Your task to perform on an android device: open wifi settings Image 0: 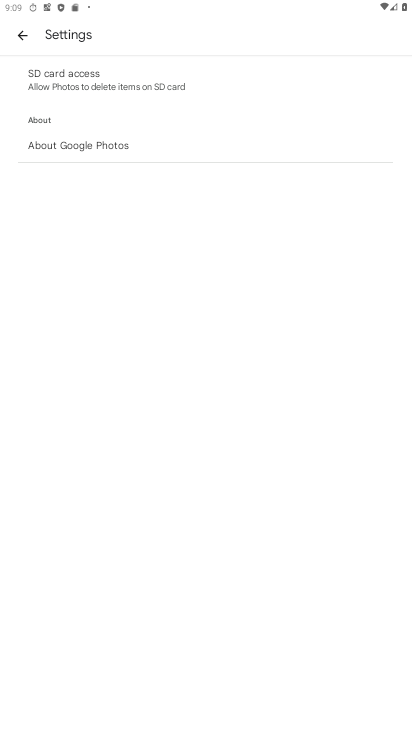
Step 0: press home button
Your task to perform on an android device: open wifi settings Image 1: 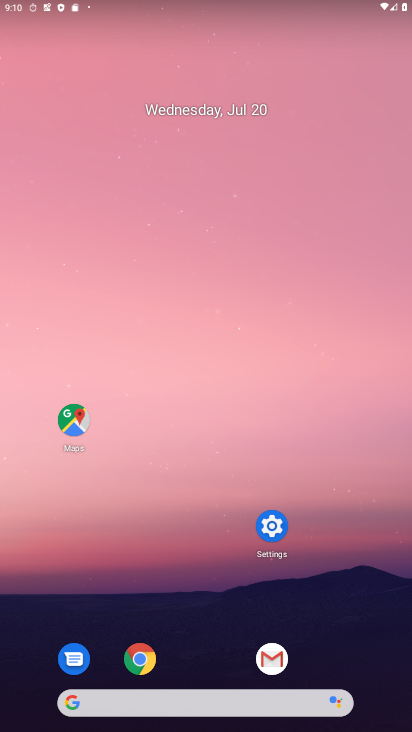
Step 1: click (268, 538)
Your task to perform on an android device: open wifi settings Image 2: 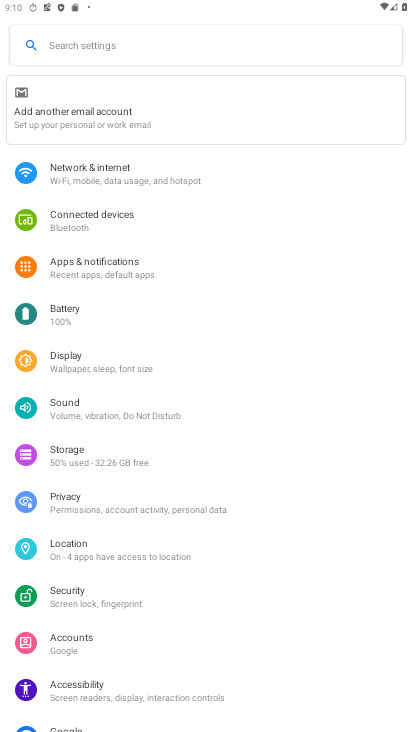
Step 2: click (97, 187)
Your task to perform on an android device: open wifi settings Image 3: 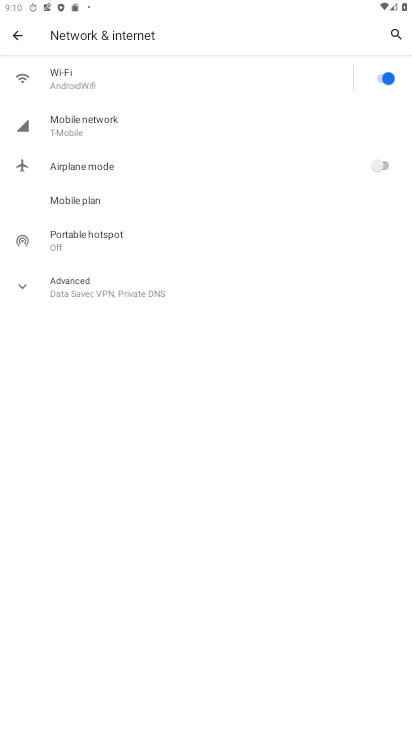
Step 3: click (111, 92)
Your task to perform on an android device: open wifi settings Image 4: 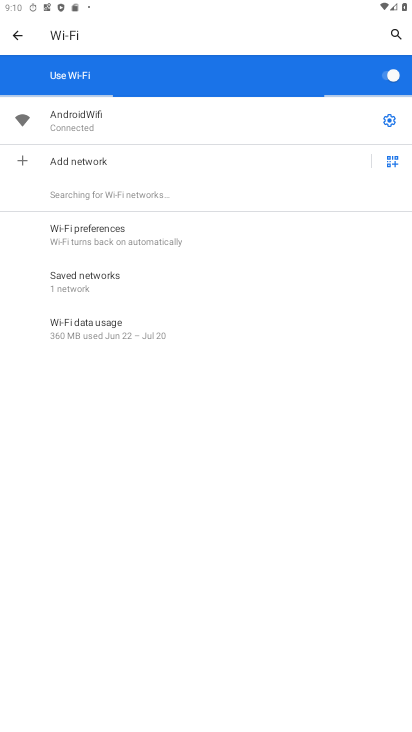
Step 4: task complete